Your task to perform on an android device: Empty the shopping cart on ebay. Add lenovo thinkpad to the cart on ebay, then select checkout. Image 0: 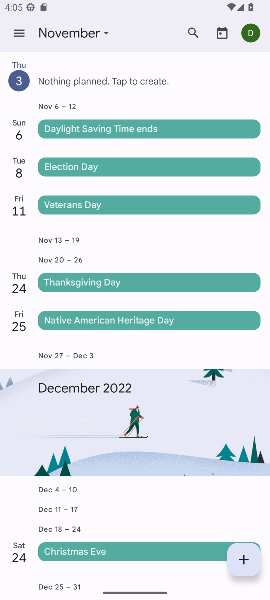
Step 0: press home button
Your task to perform on an android device: Empty the shopping cart on ebay. Add lenovo thinkpad to the cart on ebay, then select checkout. Image 1: 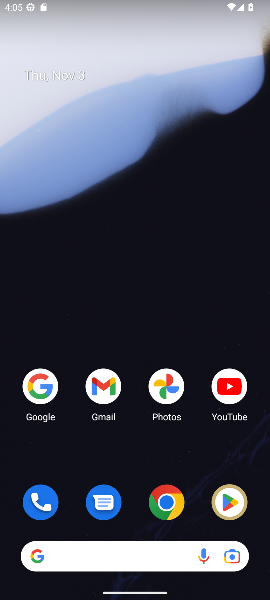
Step 1: click (167, 506)
Your task to perform on an android device: Empty the shopping cart on ebay. Add lenovo thinkpad to the cart on ebay, then select checkout. Image 2: 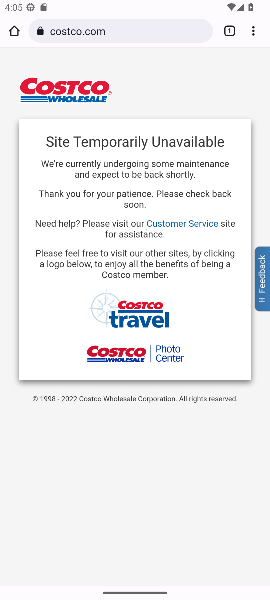
Step 2: click (15, 29)
Your task to perform on an android device: Empty the shopping cart on ebay. Add lenovo thinkpad to the cart on ebay, then select checkout. Image 3: 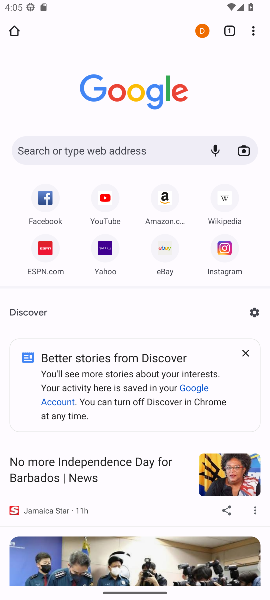
Step 3: click (78, 144)
Your task to perform on an android device: Empty the shopping cart on ebay. Add lenovo thinkpad to the cart on ebay, then select checkout. Image 4: 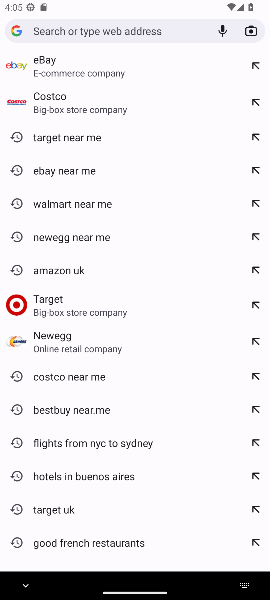
Step 4: click (43, 61)
Your task to perform on an android device: Empty the shopping cart on ebay. Add lenovo thinkpad to the cart on ebay, then select checkout. Image 5: 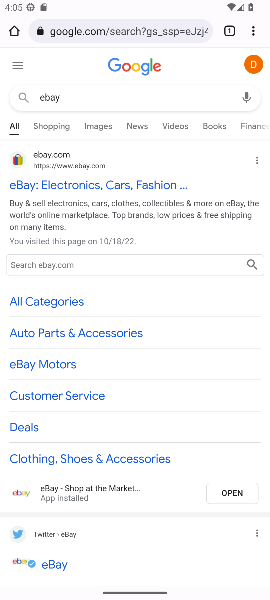
Step 5: drag from (184, 391) to (154, 254)
Your task to perform on an android device: Empty the shopping cart on ebay. Add lenovo thinkpad to the cart on ebay, then select checkout. Image 6: 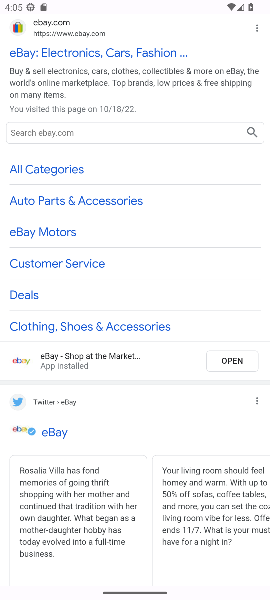
Step 6: drag from (136, 400) to (113, 206)
Your task to perform on an android device: Empty the shopping cart on ebay. Add lenovo thinkpad to the cart on ebay, then select checkout. Image 7: 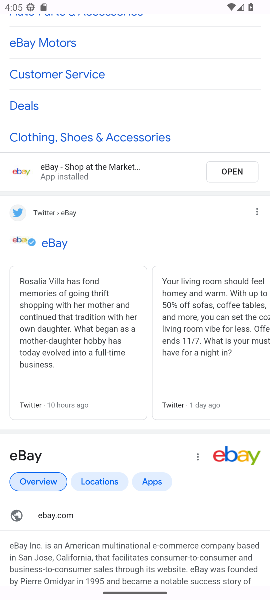
Step 7: click (56, 514)
Your task to perform on an android device: Empty the shopping cart on ebay. Add lenovo thinkpad to the cart on ebay, then select checkout. Image 8: 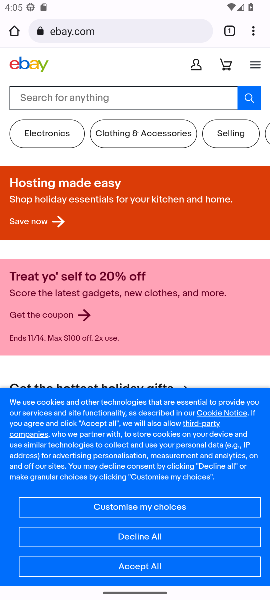
Step 8: click (91, 94)
Your task to perform on an android device: Empty the shopping cart on ebay. Add lenovo thinkpad to the cart on ebay, then select checkout. Image 9: 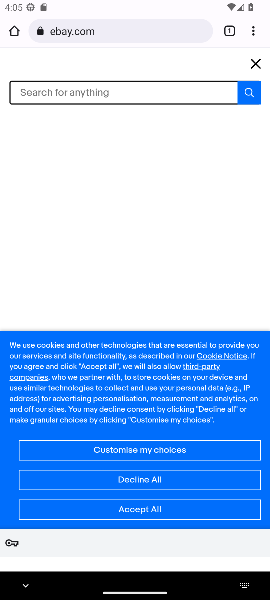
Step 9: click (131, 510)
Your task to perform on an android device: Empty the shopping cart on ebay. Add lenovo thinkpad to the cart on ebay, then select checkout. Image 10: 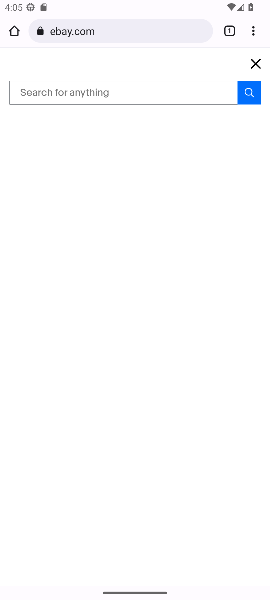
Step 10: click (49, 92)
Your task to perform on an android device: Empty the shopping cart on ebay. Add lenovo thinkpad to the cart on ebay, then select checkout. Image 11: 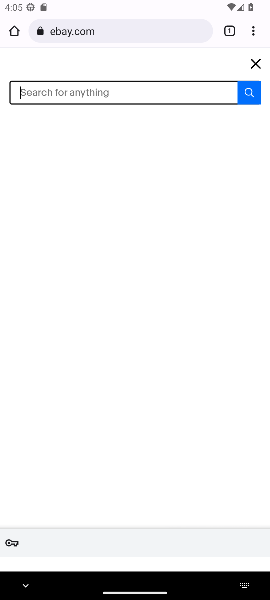
Step 11: click (254, 64)
Your task to perform on an android device: Empty the shopping cart on ebay. Add lenovo thinkpad to the cart on ebay, then select checkout. Image 12: 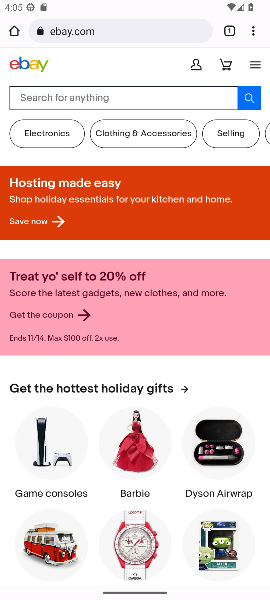
Step 12: click (109, 94)
Your task to perform on an android device: Empty the shopping cart on ebay. Add lenovo thinkpad to the cart on ebay, then select checkout. Image 13: 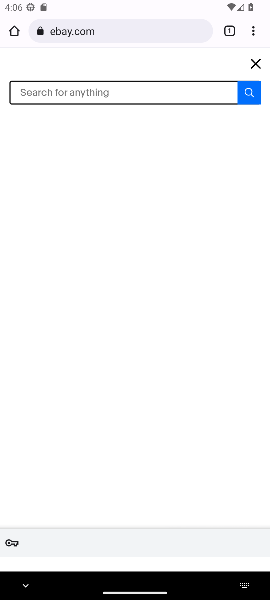
Step 13: type "lenovo thinkpad"
Your task to perform on an android device: Empty the shopping cart on ebay. Add lenovo thinkpad to the cart on ebay, then select checkout. Image 14: 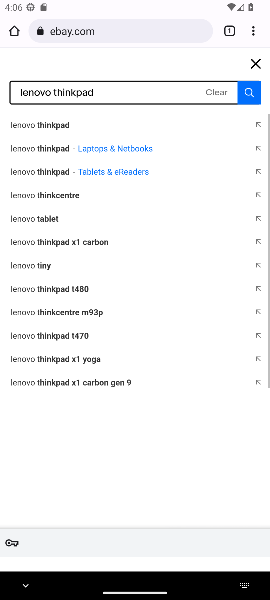
Step 14: click (47, 124)
Your task to perform on an android device: Empty the shopping cart on ebay. Add lenovo thinkpad to the cart on ebay, then select checkout. Image 15: 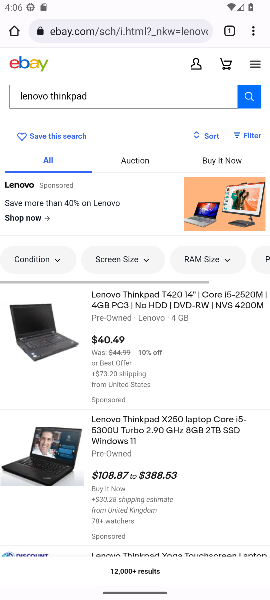
Step 15: click (139, 304)
Your task to perform on an android device: Empty the shopping cart on ebay. Add lenovo thinkpad to the cart on ebay, then select checkout. Image 16: 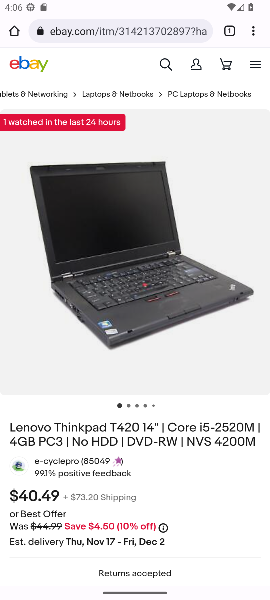
Step 16: drag from (192, 490) to (178, 378)
Your task to perform on an android device: Empty the shopping cart on ebay. Add lenovo thinkpad to the cart on ebay, then select checkout. Image 17: 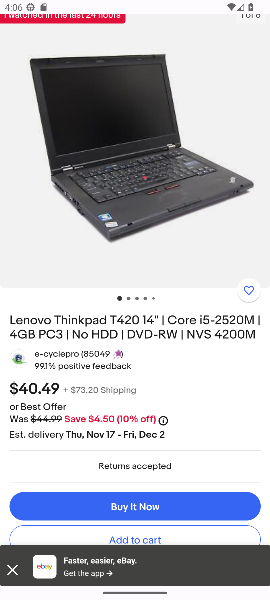
Step 17: drag from (198, 419) to (155, 194)
Your task to perform on an android device: Empty the shopping cart on ebay. Add lenovo thinkpad to the cart on ebay, then select checkout. Image 18: 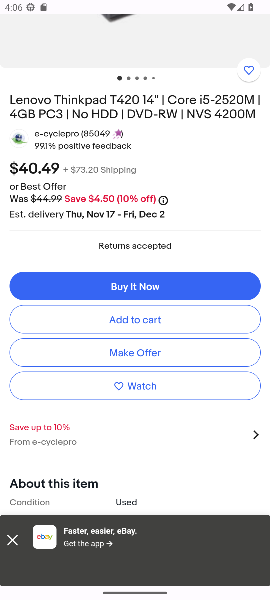
Step 18: click (126, 321)
Your task to perform on an android device: Empty the shopping cart on ebay. Add lenovo thinkpad to the cart on ebay, then select checkout. Image 19: 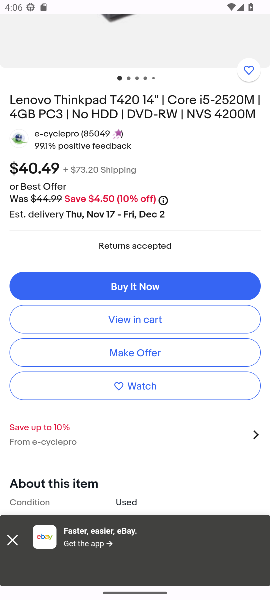
Step 19: click (147, 322)
Your task to perform on an android device: Empty the shopping cart on ebay. Add lenovo thinkpad to the cart on ebay, then select checkout. Image 20: 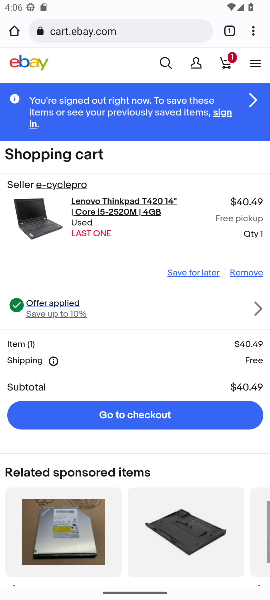
Step 20: click (128, 416)
Your task to perform on an android device: Empty the shopping cart on ebay. Add lenovo thinkpad to the cart on ebay, then select checkout. Image 21: 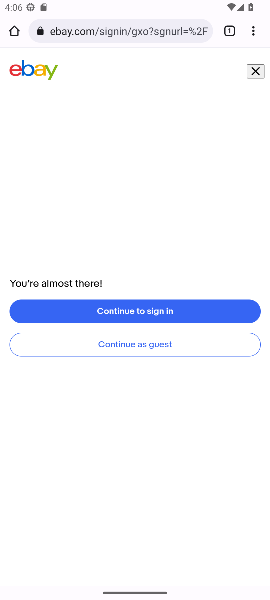
Step 21: task complete